Your task to perform on an android device: change the clock display to show seconds Image 0: 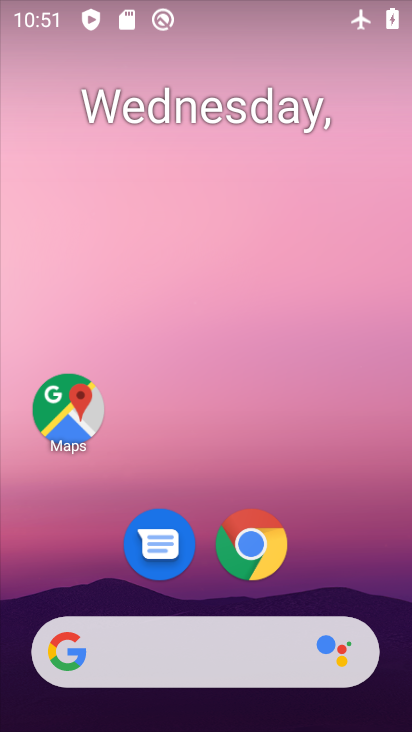
Step 0: drag from (318, 412) to (374, 126)
Your task to perform on an android device: change the clock display to show seconds Image 1: 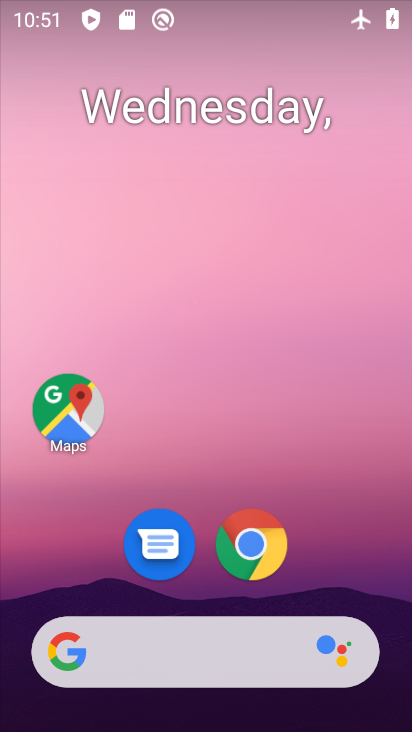
Step 1: drag from (292, 605) to (310, 37)
Your task to perform on an android device: change the clock display to show seconds Image 2: 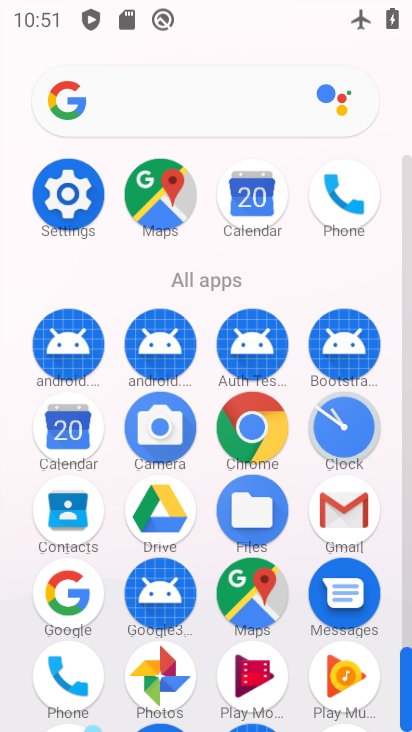
Step 2: click (345, 419)
Your task to perform on an android device: change the clock display to show seconds Image 3: 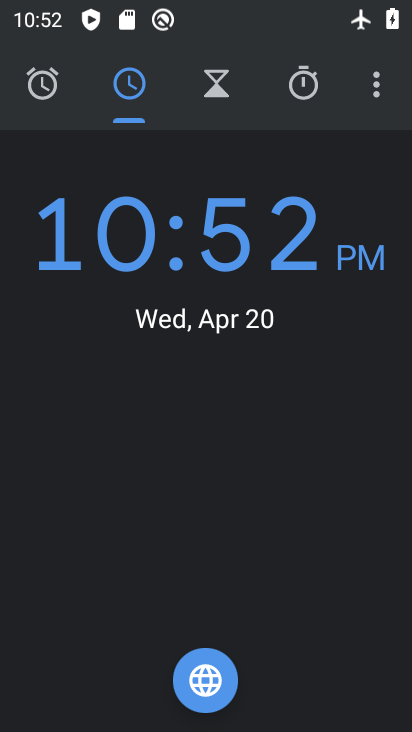
Step 3: click (381, 90)
Your task to perform on an android device: change the clock display to show seconds Image 4: 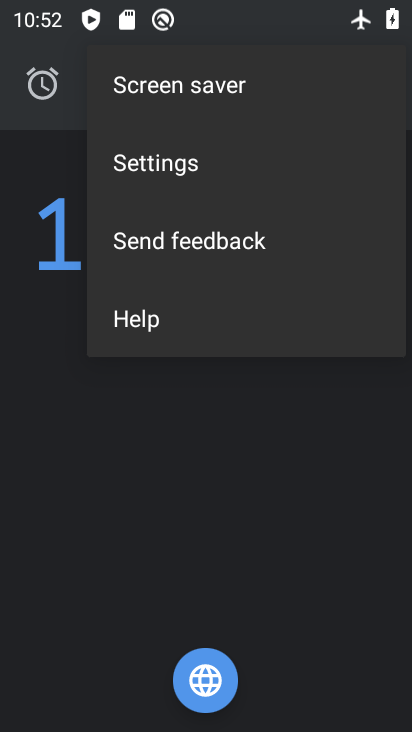
Step 4: click (223, 155)
Your task to perform on an android device: change the clock display to show seconds Image 5: 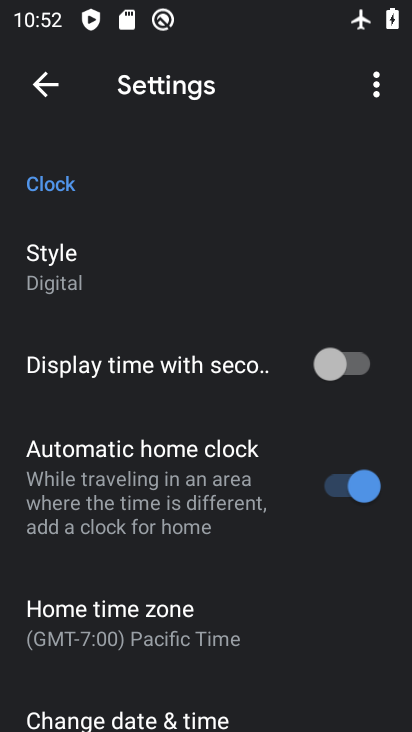
Step 5: click (334, 363)
Your task to perform on an android device: change the clock display to show seconds Image 6: 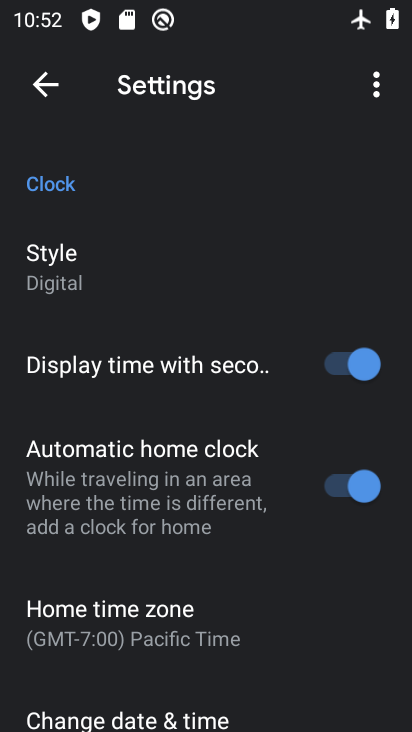
Step 6: task complete